Your task to perform on an android device: Search for lg ultragear on newegg.com, select the first entry, and add it to the cart. Image 0: 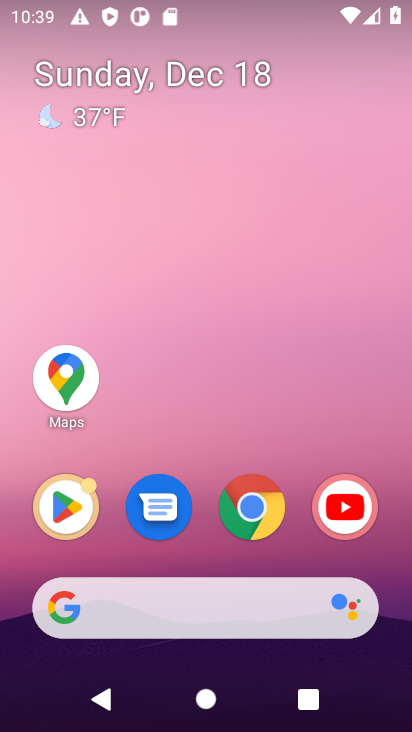
Step 0: click (257, 512)
Your task to perform on an android device: Search for lg ultragear on newegg.com, select the first entry, and add it to the cart. Image 1: 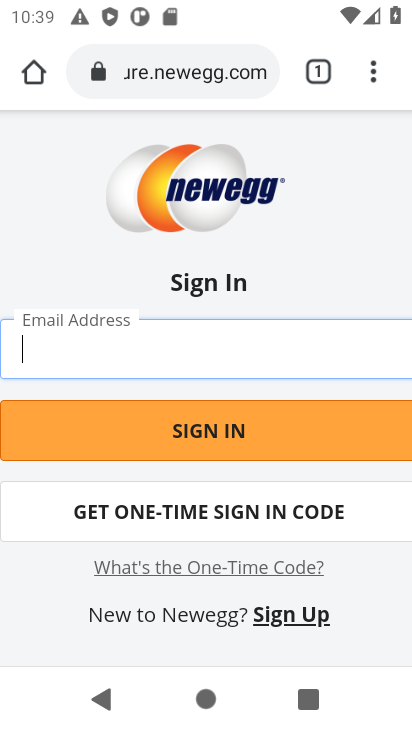
Step 1: press back button
Your task to perform on an android device: Search for lg ultragear on newegg.com, select the first entry, and add it to the cart. Image 2: 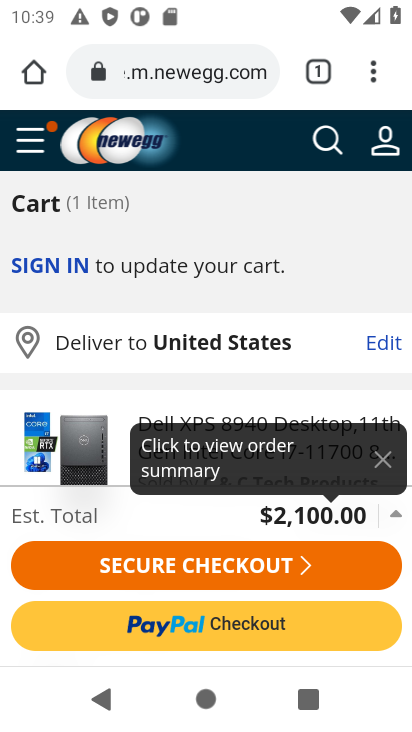
Step 2: click (317, 143)
Your task to perform on an android device: Search for lg ultragear on newegg.com, select the first entry, and add it to the cart. Image 3: 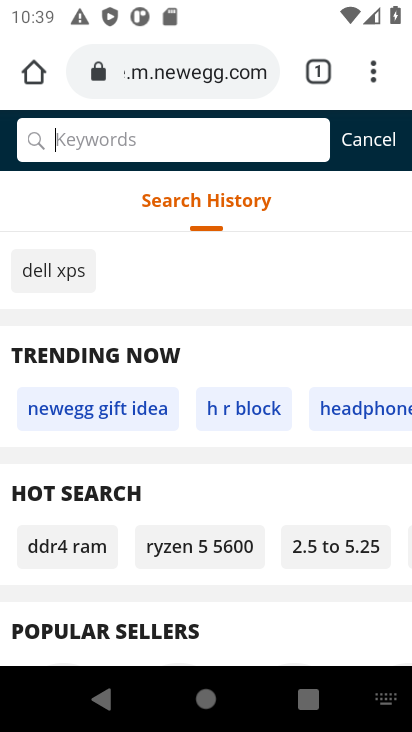
Step 3: type "lg ultragear"
Your task to perform on an android device: Search for lg ultragear on newegg.com, select the first entry, and add it to the cart. Image 4: 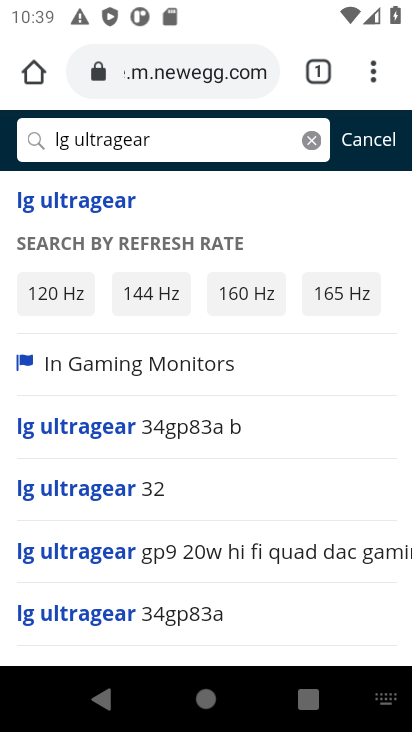
Step 4: click (86, 209)
Your task to perform on an android device: Search for lg ultragear on newegg.com, select the first entry, and add it to the cart. Image 5: 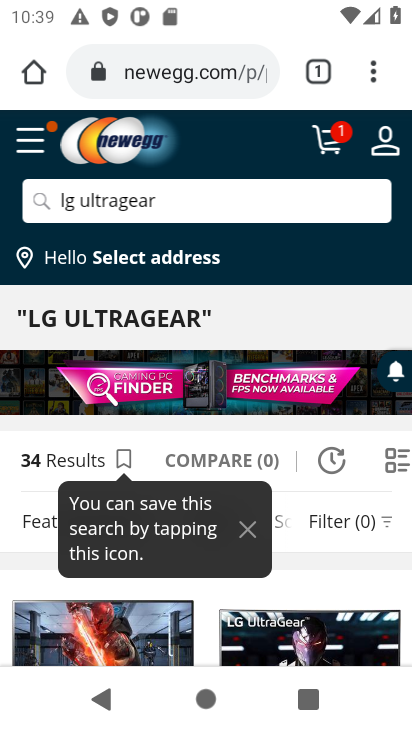
Step 5: drag from (179, 589) to (195, 313)
Your task to perform on an android device: Search for lg ultragear on newegg.com, select the first entry, and add it to the cart. Image 6: 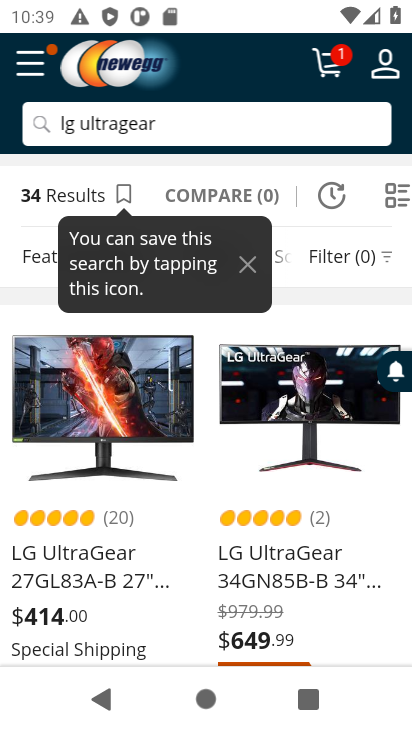
Step 6: click (84, 563)
Your task to perform on an android device: Search for lg ultragear on newegg.com, select the first entry, and add it to the cart. Image 7: 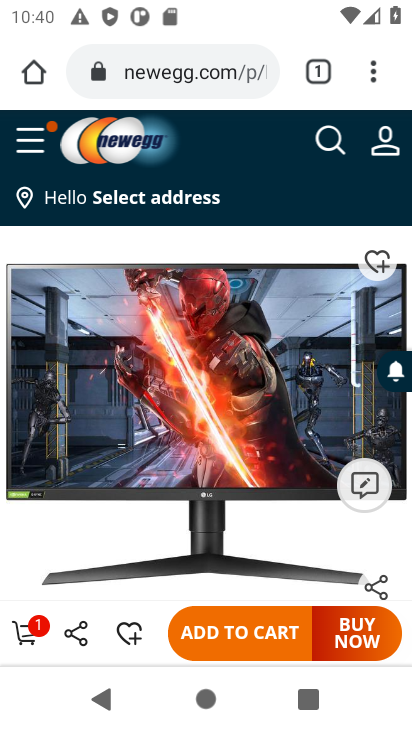
Step 7: click (236, 636)
Your task to perform on an android device: Search for lg ultragear on newegg.com, select the first entry, and add it to the cart. Image 8: 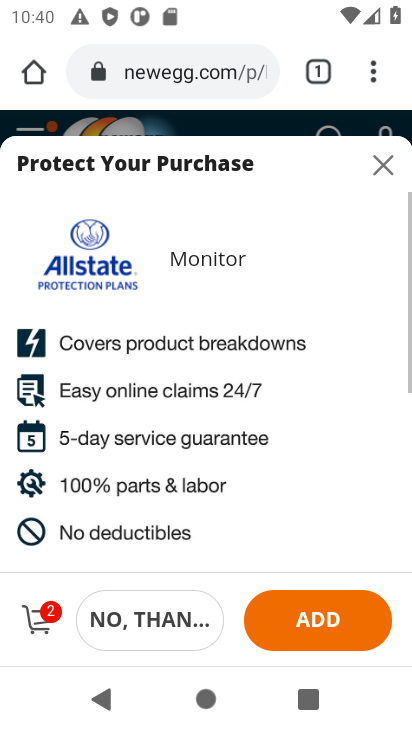
Step 8: task complete